Your task to perform on an android device: toggle show notifications on the lock screen Image 0: 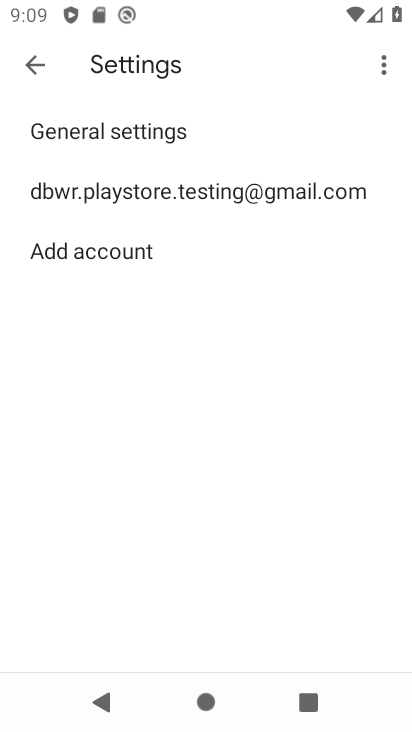
Step 0: press back button
Your task to perform on an android device: toggle show notifications on the lock screen Image 1: 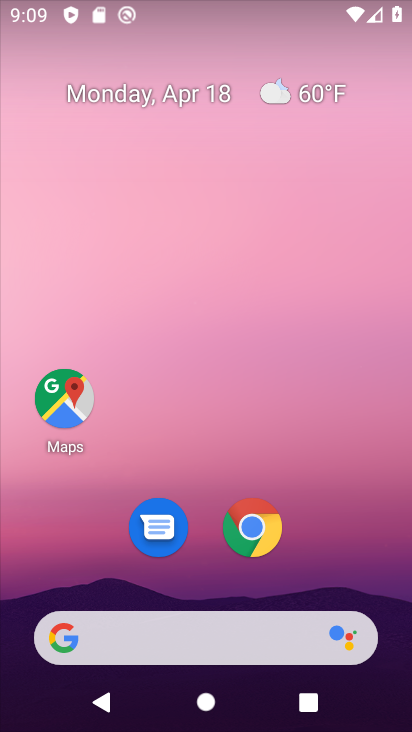
Step 1: drag from (128, 560) to (273, 152)
Your task to perform on an android device: toggle show notifications on the lock screen Image 2: 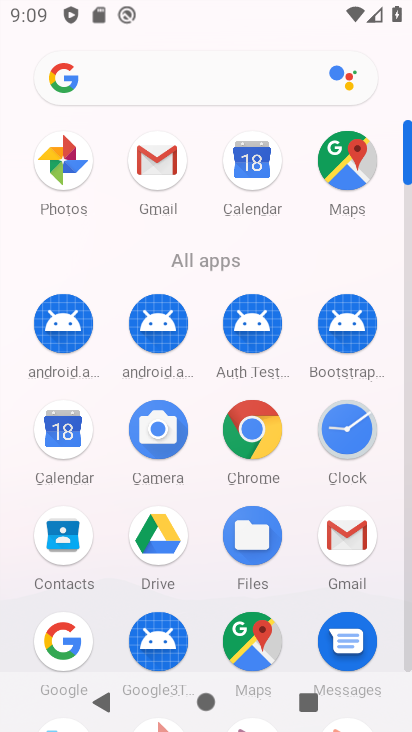
Step 2: drag from (175, 533) to (275, 288)
Your task to perform on an android device: toggle show notifications on the lock screen Image 3: 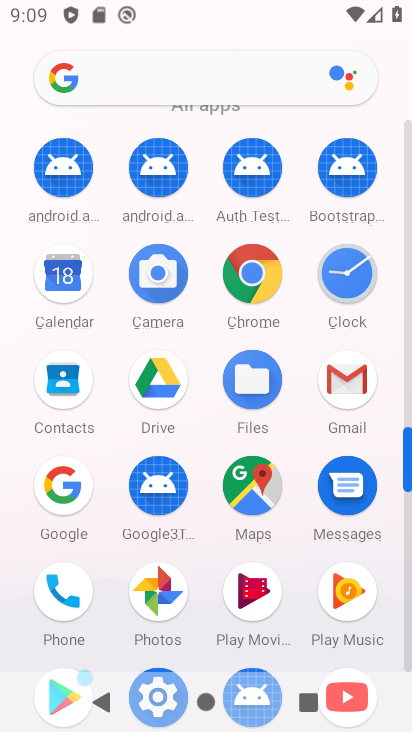
Step 3: drag from (173, 649) to (261, 385)
Your task to perform on an android device: toggle show notifications on the lock screen Image 4: 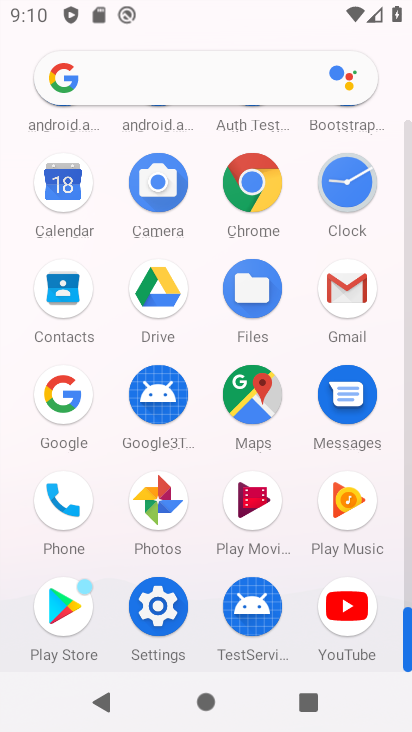
Step 4: click (160, 607)
Your task to perform on an android device: toggle show notifications on the lock screen Image 5: 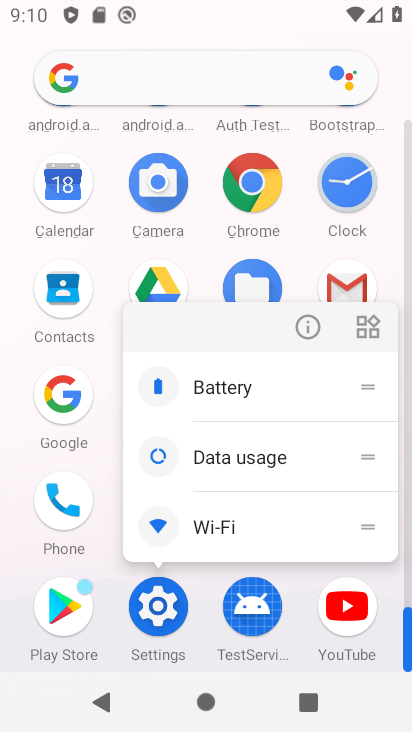
Step 5: click (164, 608)
Your task to perform on an android device: toggle show notifications on the lock screen Image 6: 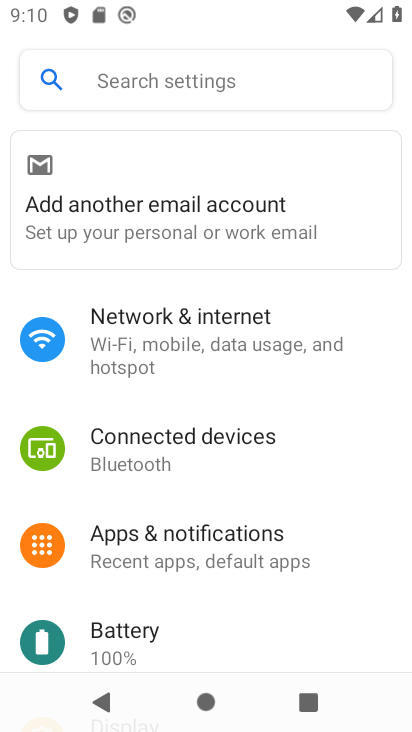
Step 6: drag from (199, 601) to (303, 280)
Your task to perform on an android device: toggle show notifications on the lock screen Image 7: 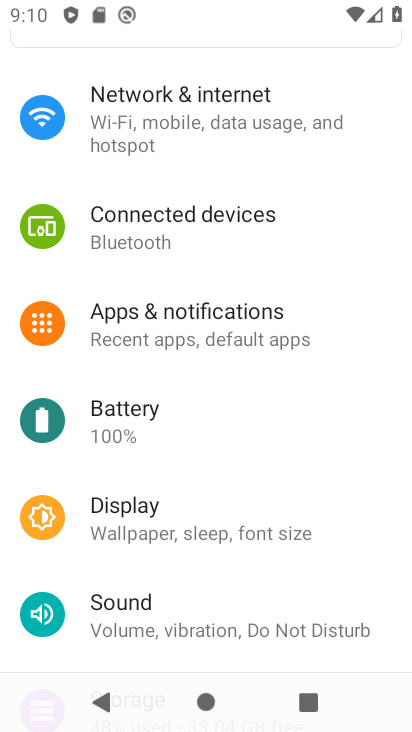
Step 7: click (218, 325)
Your task to perform on an android device: toggle show notifications on the lock screen Image 8: 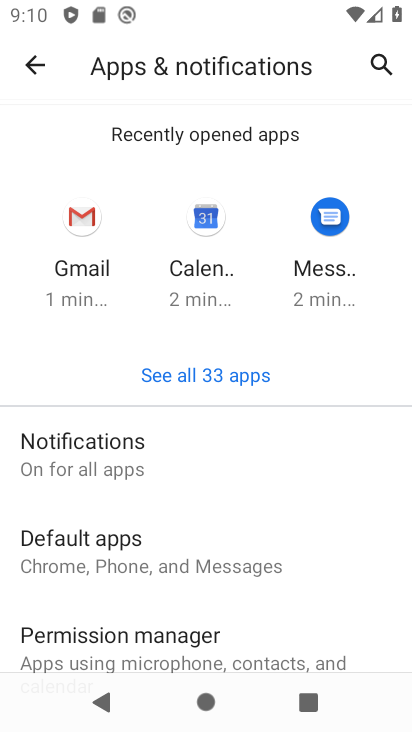
Step 8: drag from (147, 467) to (227, 291)
Your task to perform on an android device: toggle show notifications on the lock screen Image 9: 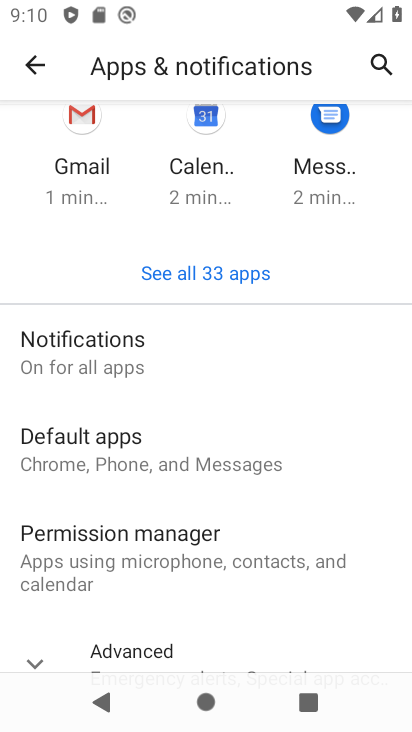
Step 9: click (169, 368)
Your task to perform on an android device: toggle show notifications on the lock screen Image 10: 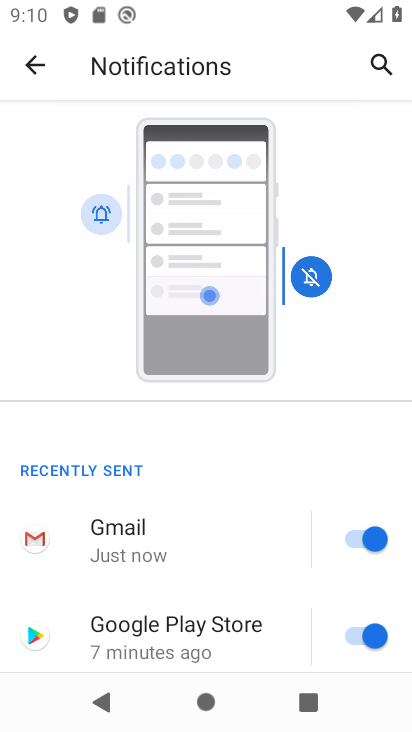
Step 10: drag from (220, 551) to (357, 203)
Your task to perform on an android device: toggle show notifications on the lock screen Image 11: 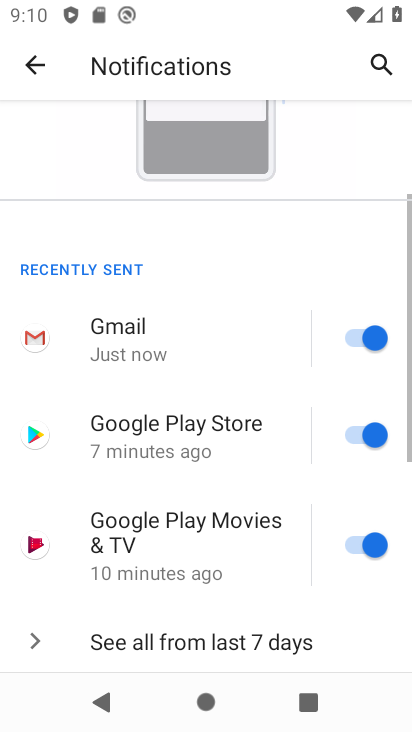
Step 11: drag from (231, 562) to (308, 323)
Your task to perform on an android device: toggle show notifications on the lock screen Image 12: 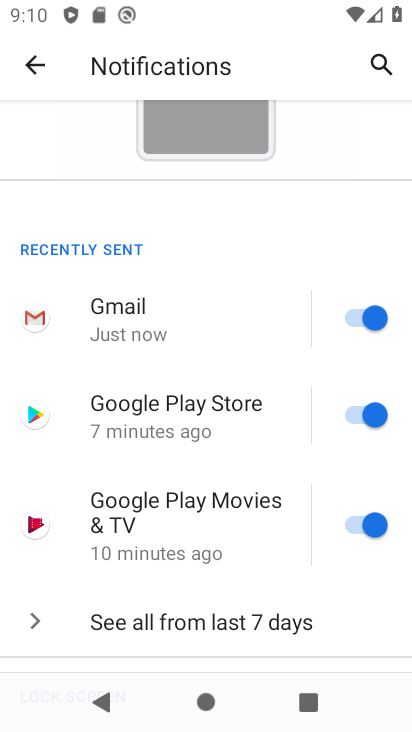
Step 12: drag from (161, 586) to (328, 182)
Your task to perform on an android device: toggle show notifications on the lock screen Image 13: 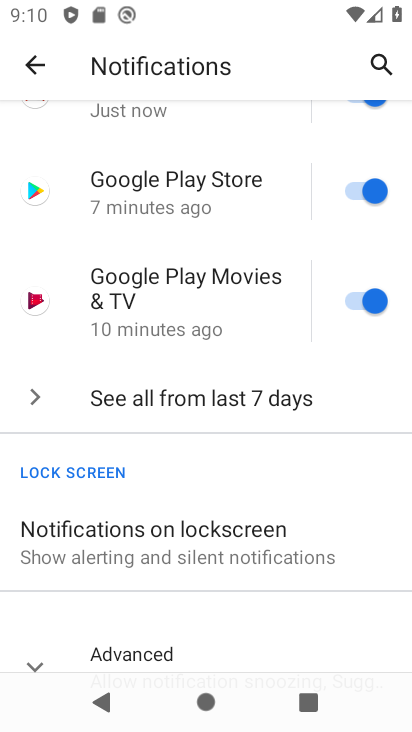
Step 13: click (158, 534)
Your task to perform on an android device: toggle show notifications on the lock screen Image 14: 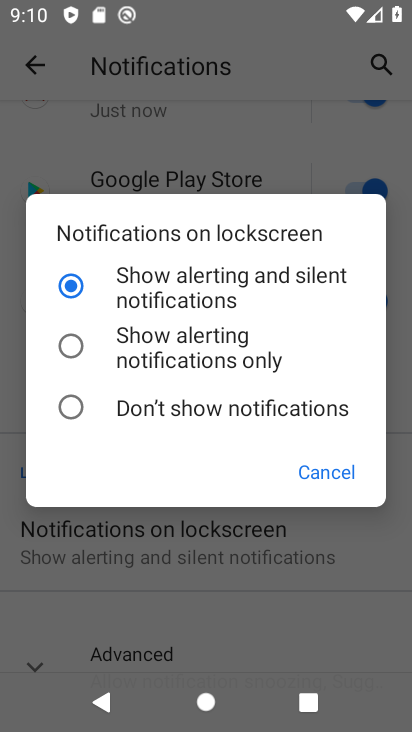
Step 14: click (76, 336)
Your task to perform on an android device: toggle show notifications on the lock screen Image 15: 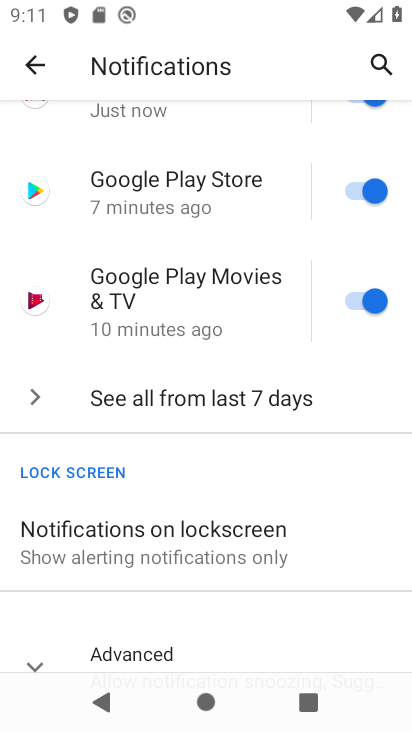
Step 15: task complete